Your task to perform on an android device: add a contact Image 0: 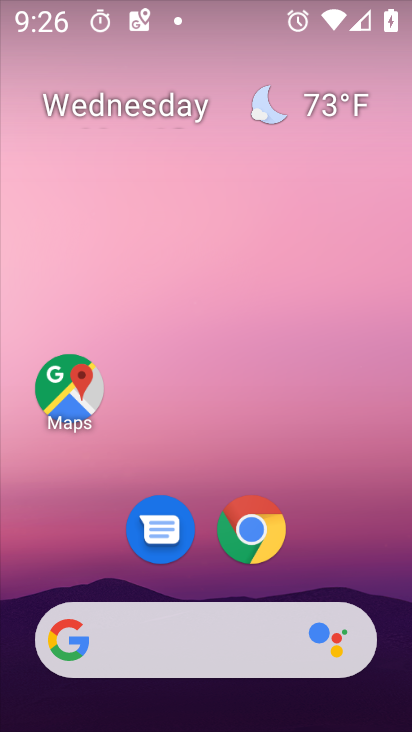
Step 0: drag from (390, 538) to (380, 260)
Your task to perform on an android device: add a contact Image 1: 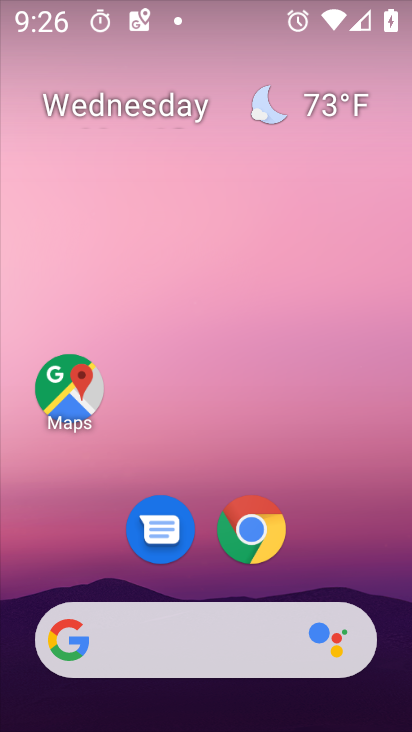
Step 1: drag from (386, 538) to (378, 231)
Your task to perform on an android device: add a contact Image 2: 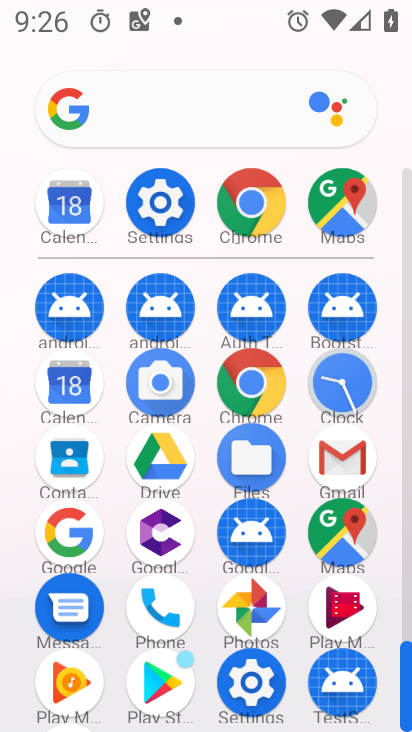
Step 2: click (70, 486)
Your task to perform on an android device: add a contact Image 3: 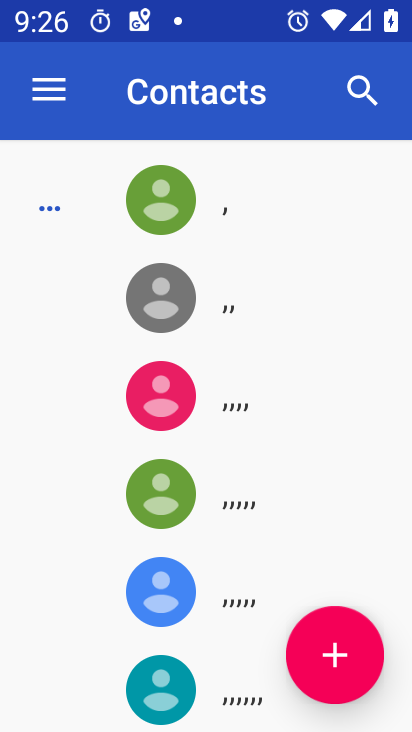
Step 3: click (335, 667)
Your task to perform on an android device: add a contact Image 4: 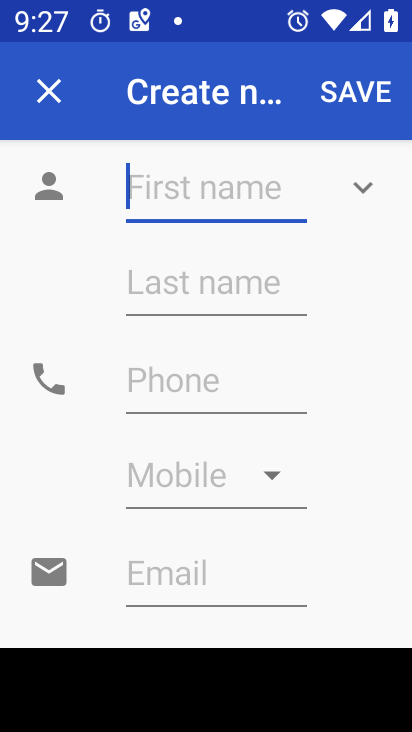
Step 4: type "pollo"
Your task to perform on an android device: add a contact Image 5: 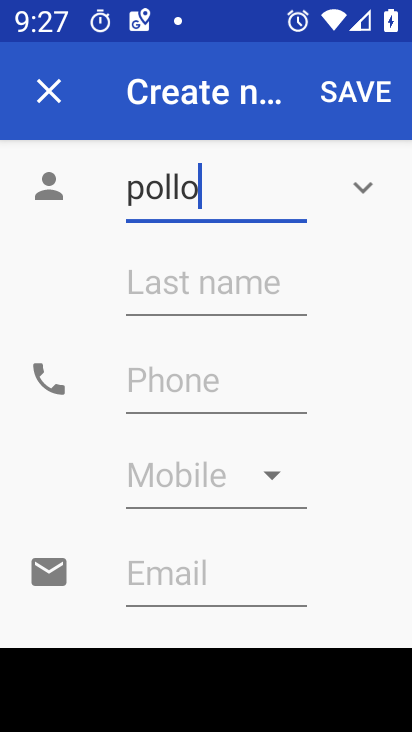
Step 5: click (216, 391)
Your task to perform on an android device: add a contact Image 6: 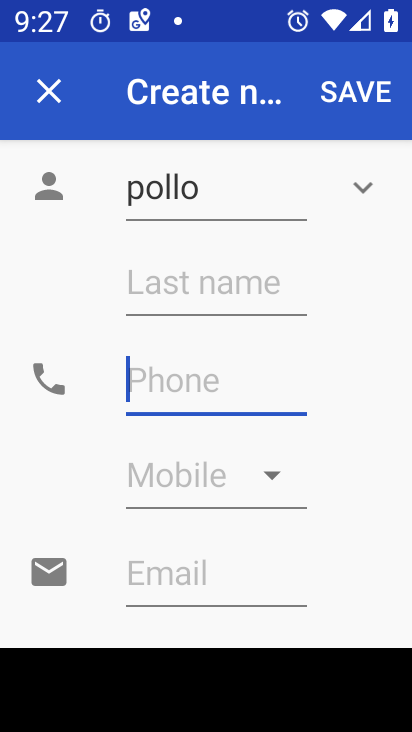
Step 6: type "123456789"
Your task to perform on an android device: add a contact Image 7: 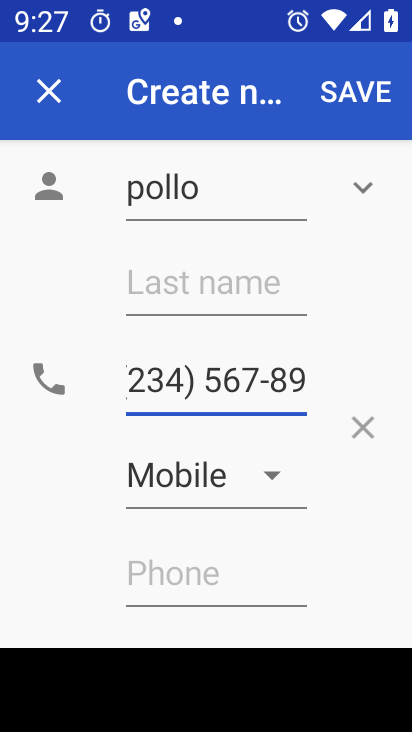
Step 7: click (352, 94)
Your task to perform on an android device: add a contact Image 8: 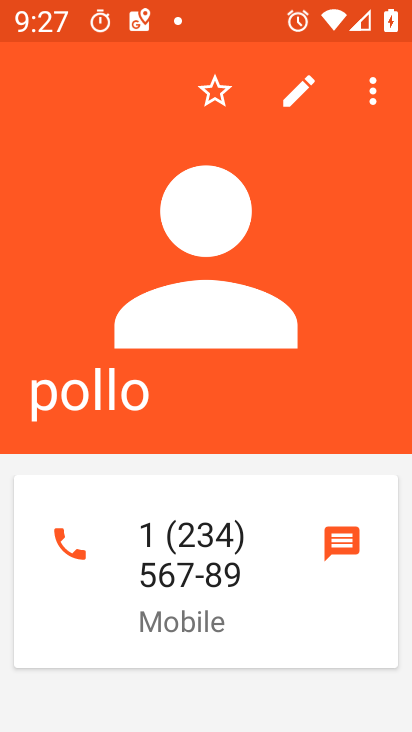
Step 8: task complete